Your task to perform on an android device: When is my next meeting? Image 0: 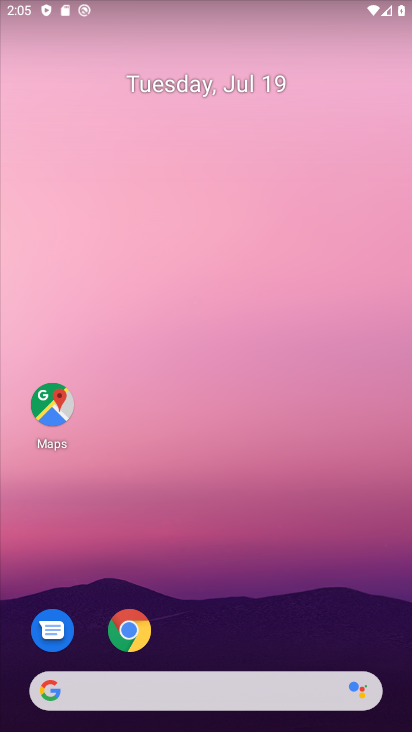
Step 0: drag from (207, 615) to (265, 123)
Your task to perform on an android device: When is my next meeting? Image 1: 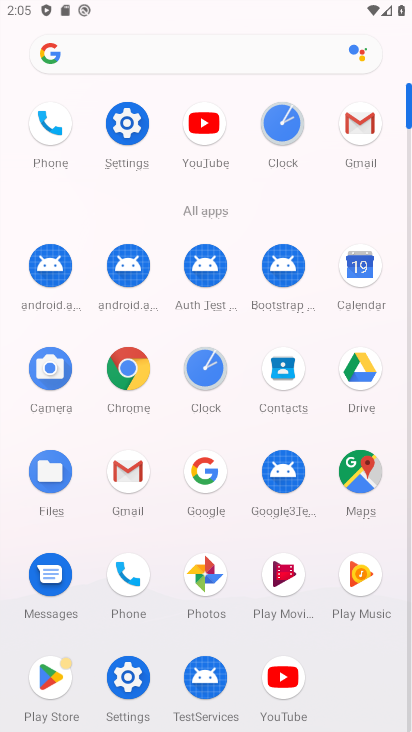
Step 1: click (362, 266)
Your task to perform on an android device: When is my next meeting? Image 2: 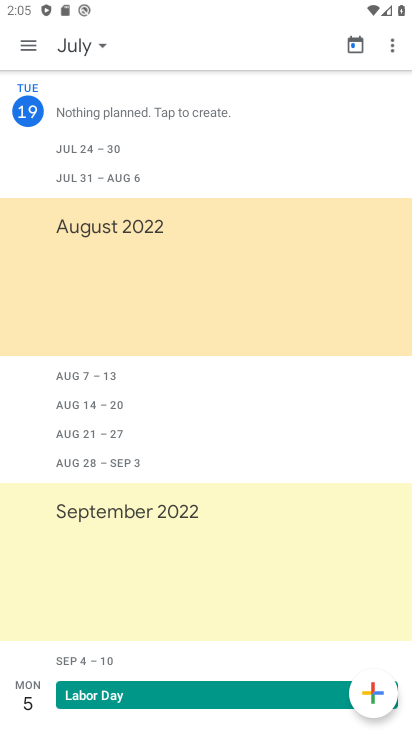
Step 2: task complete